Your task to perform on an android device: check google app version Image 0: 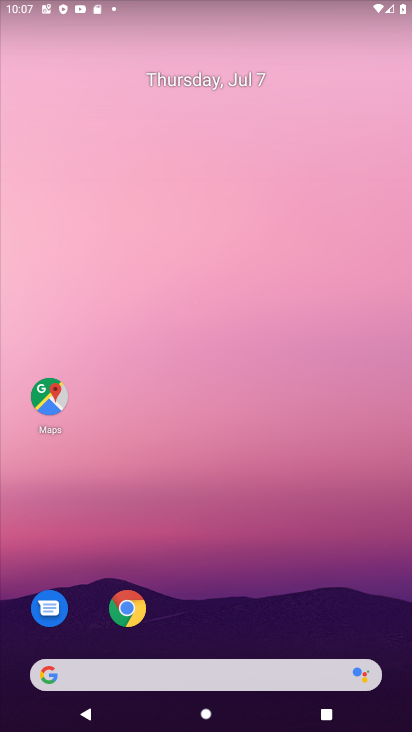
Step 0: drag from (233, 608) to (294, 46)
Your task to perform on an android device: check google app version Image 1: 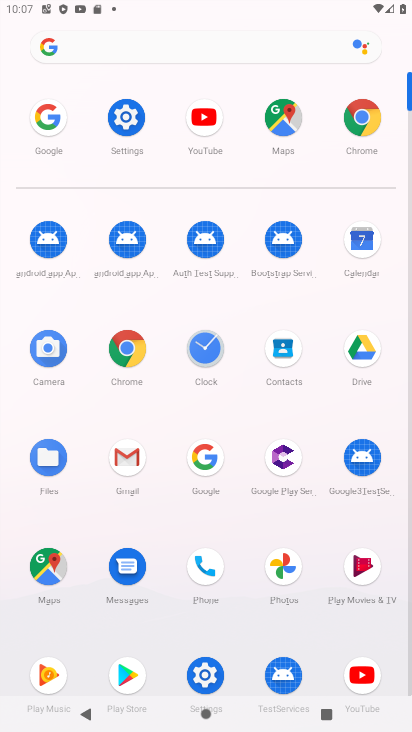
Step 1: click (204, 454)
Your task to perform on an android device: check google app version Image 2: 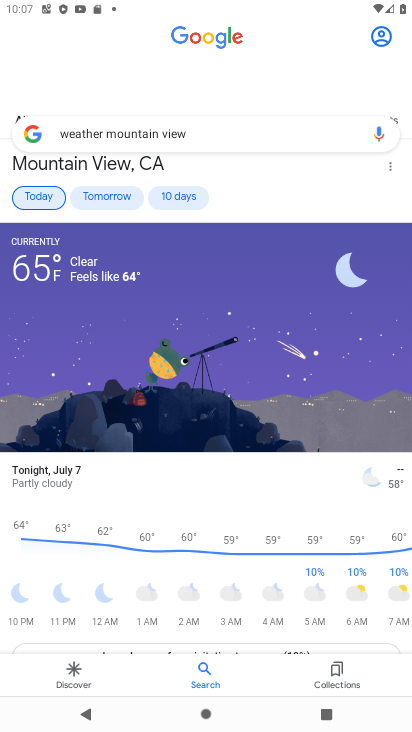
Step 2: click (379, 36)
Your task to perform on an android device: check google app version Image 3: 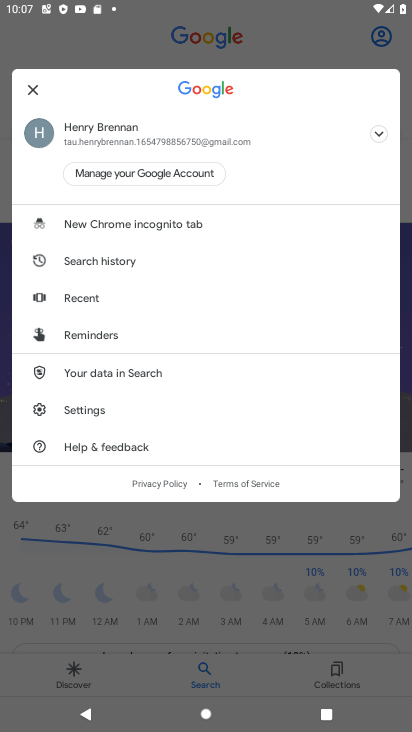
Step 3: click (86, 415)
Your task to perform on an android device: check google app version Image 4: 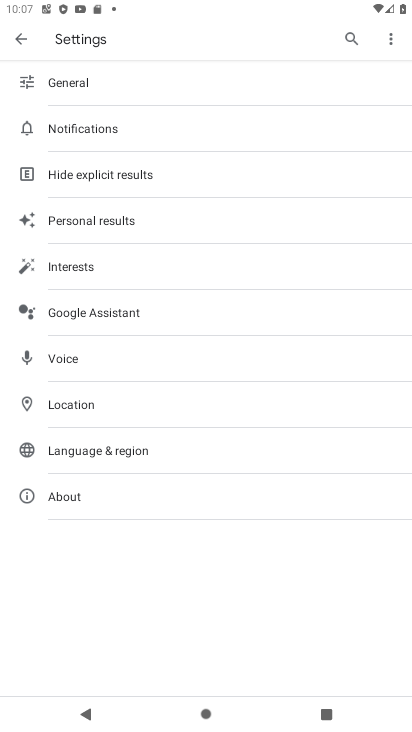
Step 4: click (75, 503)
Your task to perform on an android device: check google app version Image 5: 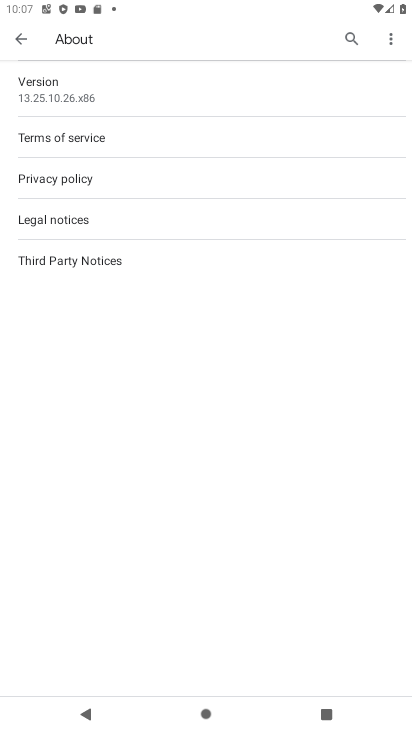
Step 5: click (103, 102)
Your task to perform on an android device: check google app version Image 6: 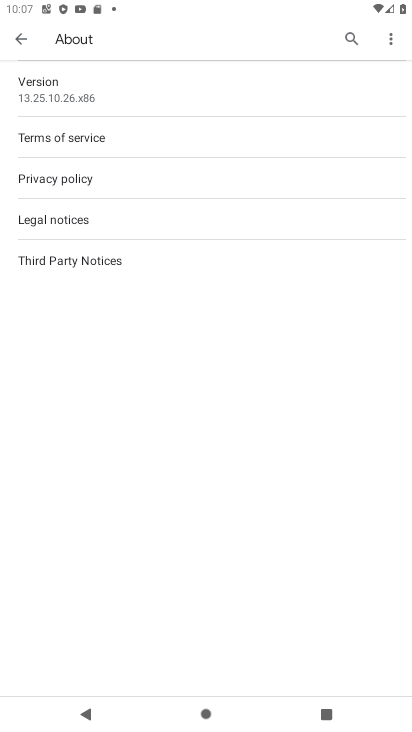
Step 6: task complete